Your task to perform on an android device: Open Youtube and go to the subscriptions tab Image 0: 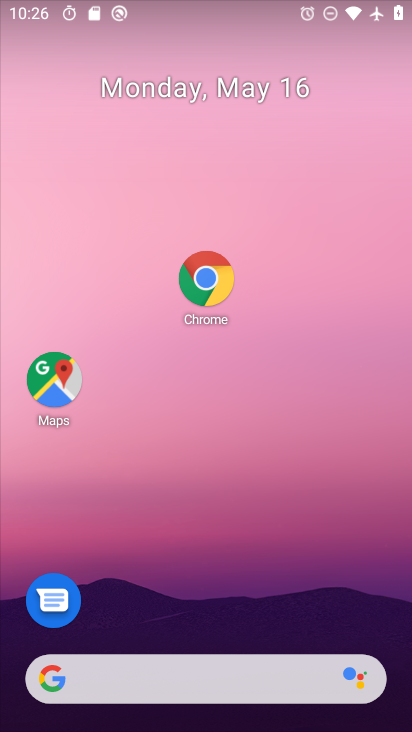
Step 0: drag from (209, 688) to (339, 396)
Your task to perform on an android device: Open Youtube and go to the subscriptions tab Image 1: 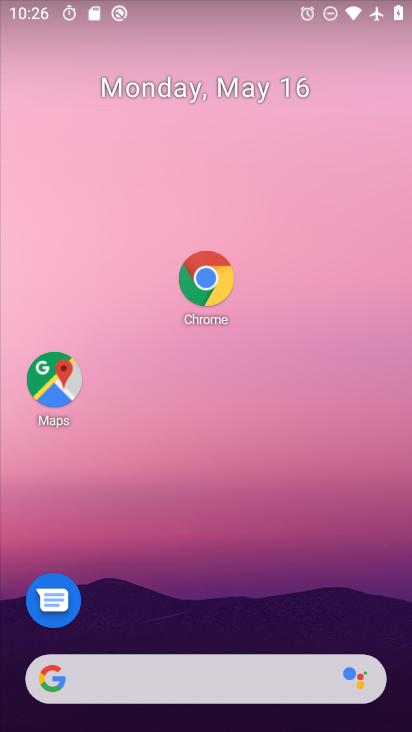
Step 1: drag from (255, 673) to (391, 274)
Your task to perform on an android device: Open Youtube and go to the subscriptions tab Image 2: 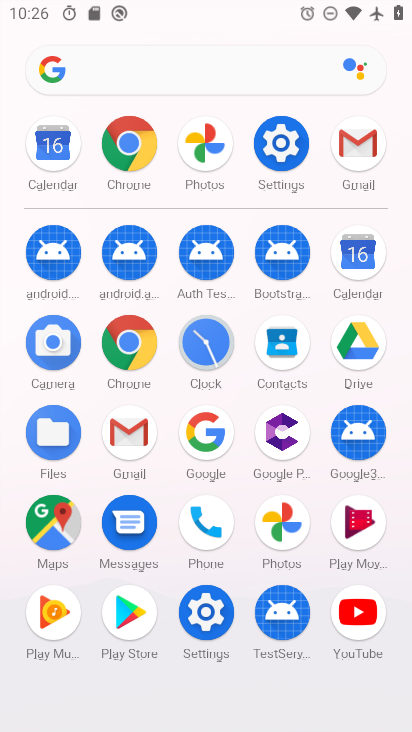
Step 2: click (361, 607)
Your task to perform on an android device: Open Youtube and go to the subscriptions tab Image 3: 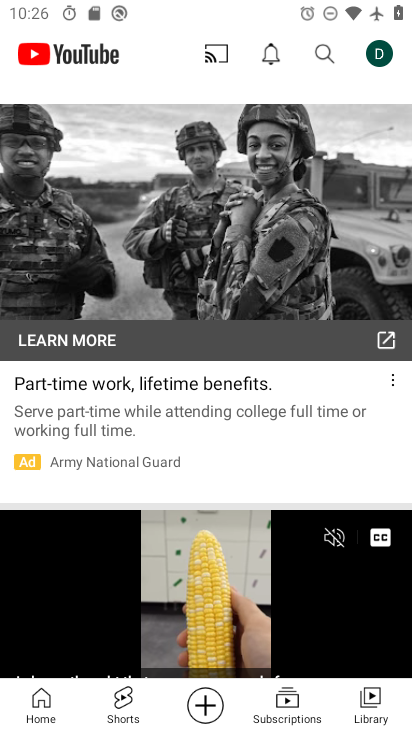
Step 3: click (291, 707)
Your task to perform on an android device: Open Youtube and go to the subscriptions tab Image 4: 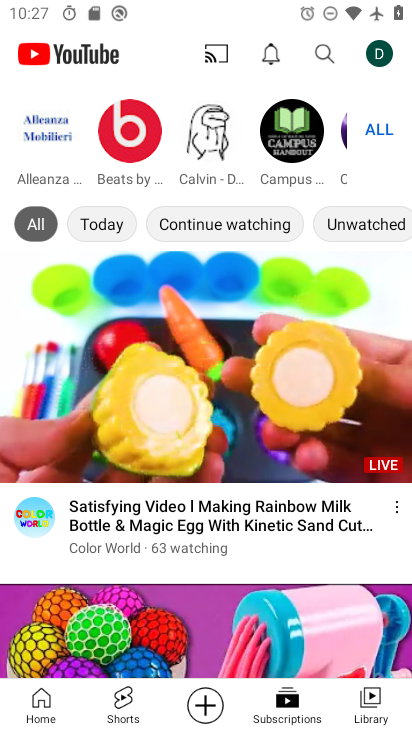
Step 4: task complete